Your task to perform on an android device: delete the emails in spam in the gmail app Image 0: 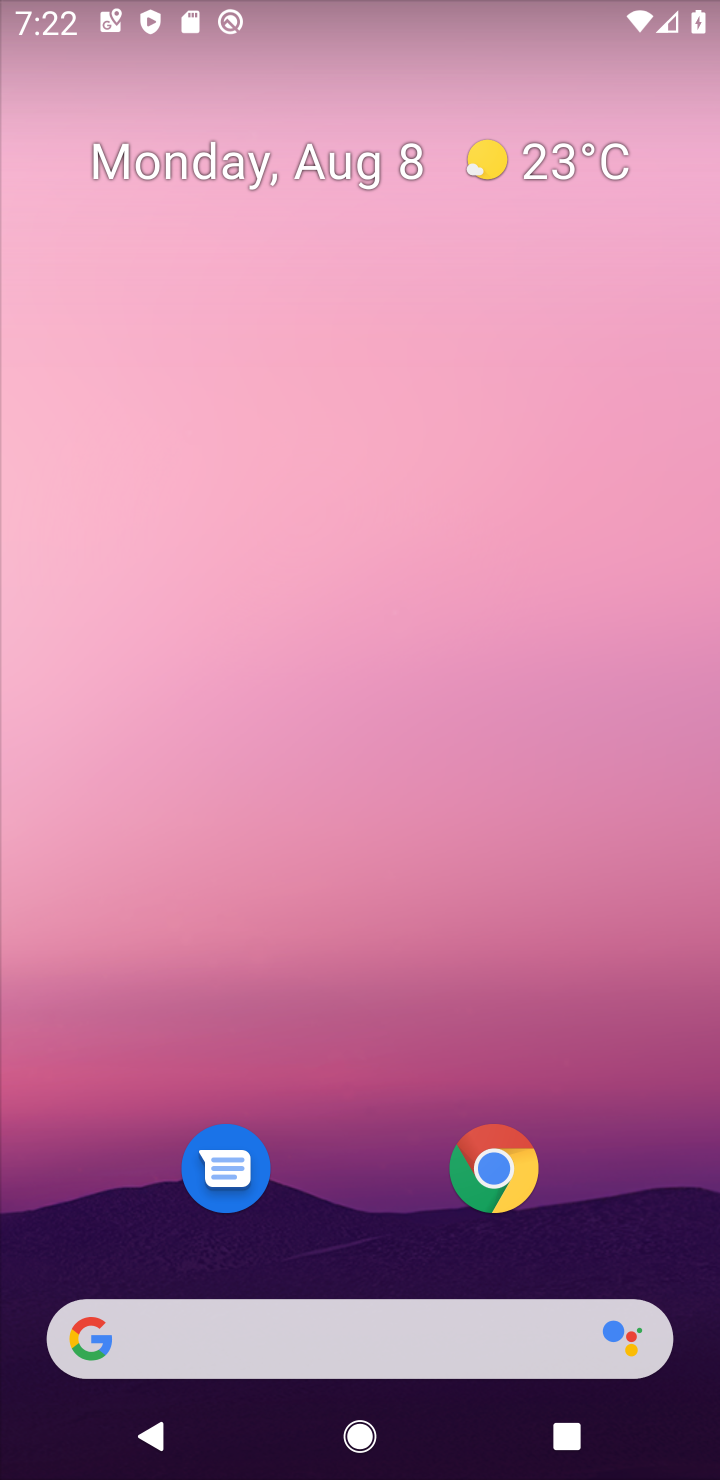
Step 0: drag from (667, 1218) to (326, 59)
Your task to perform on an android device: delete the emails in spam in the gmail app Image 1: 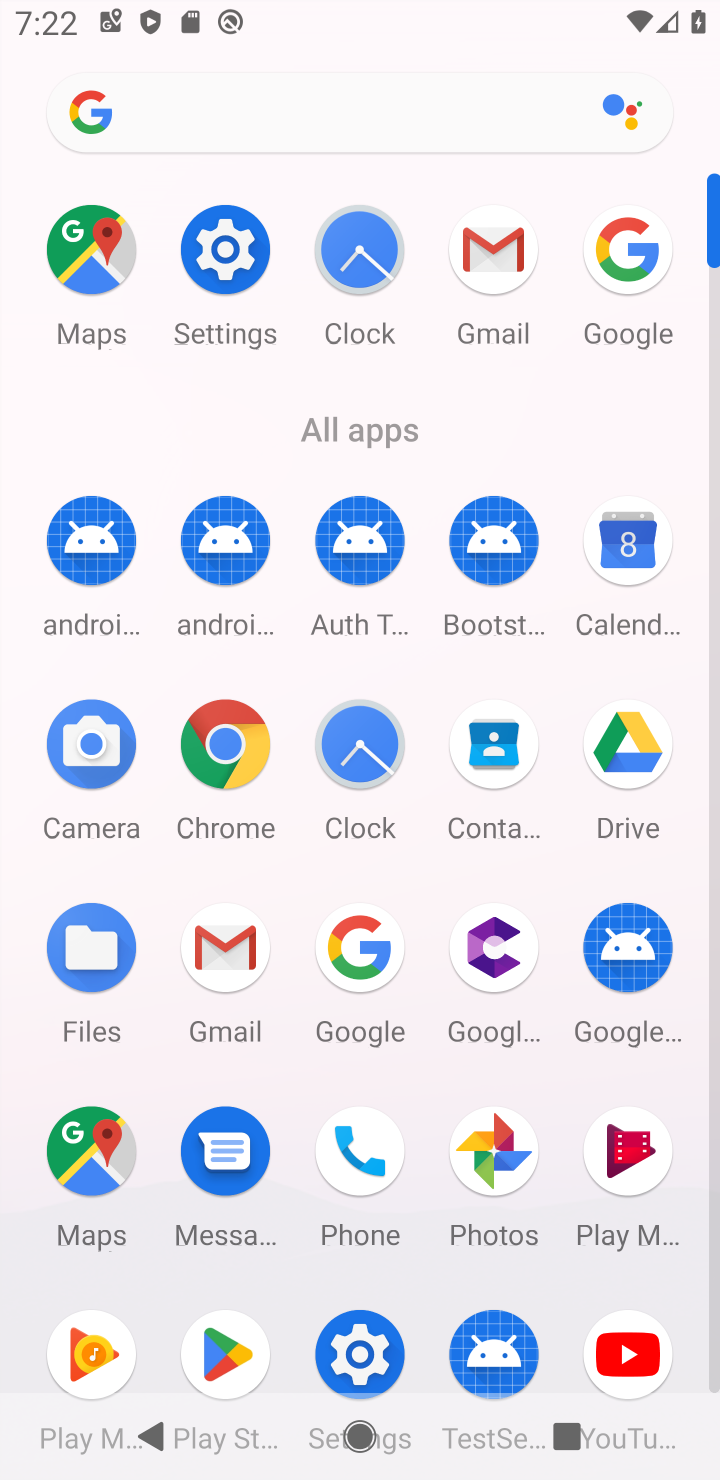
Step 1: click (203, 948)
Your task to perform on an android device: delete the emails in spam in the gmail app Image 2: 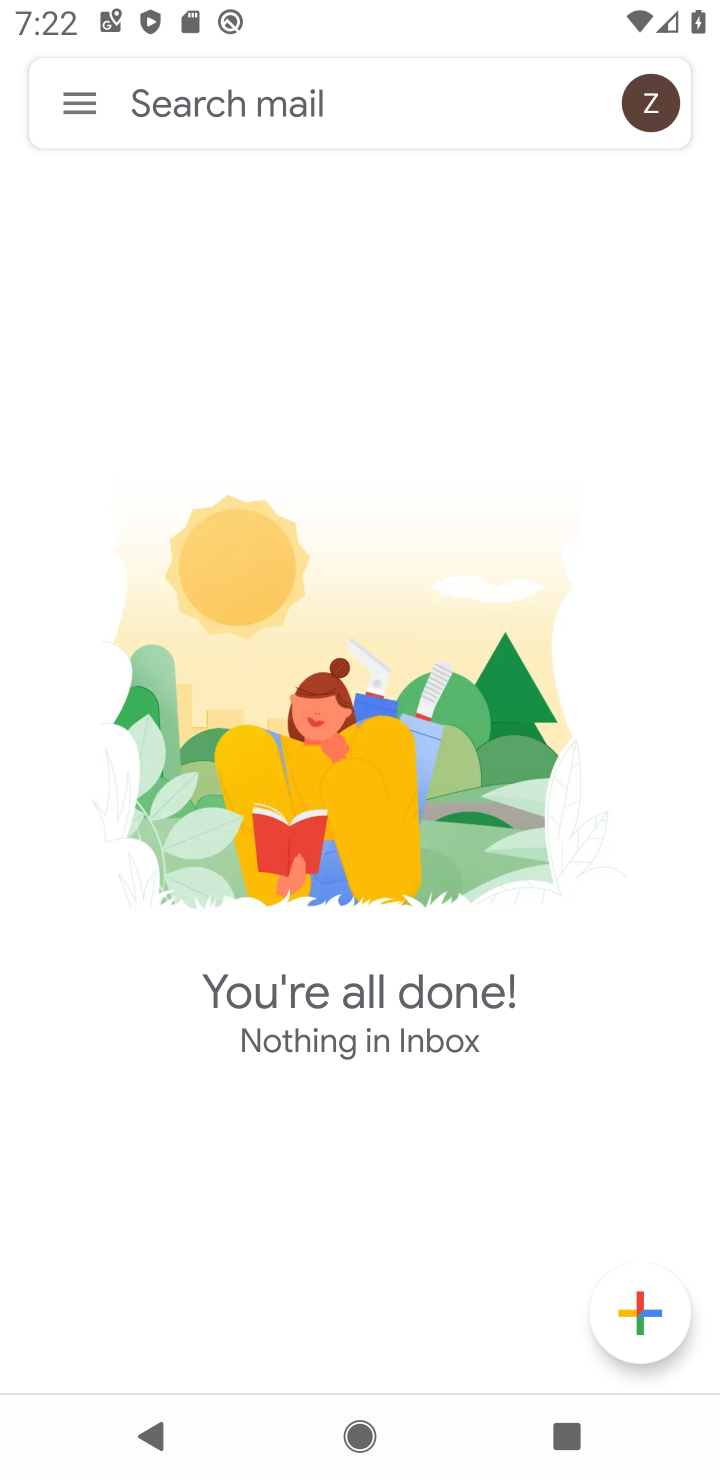
Step 2: click (86, 114)
Your task to perform on an android device: delete the emails in spam in the gmail app Image 3: 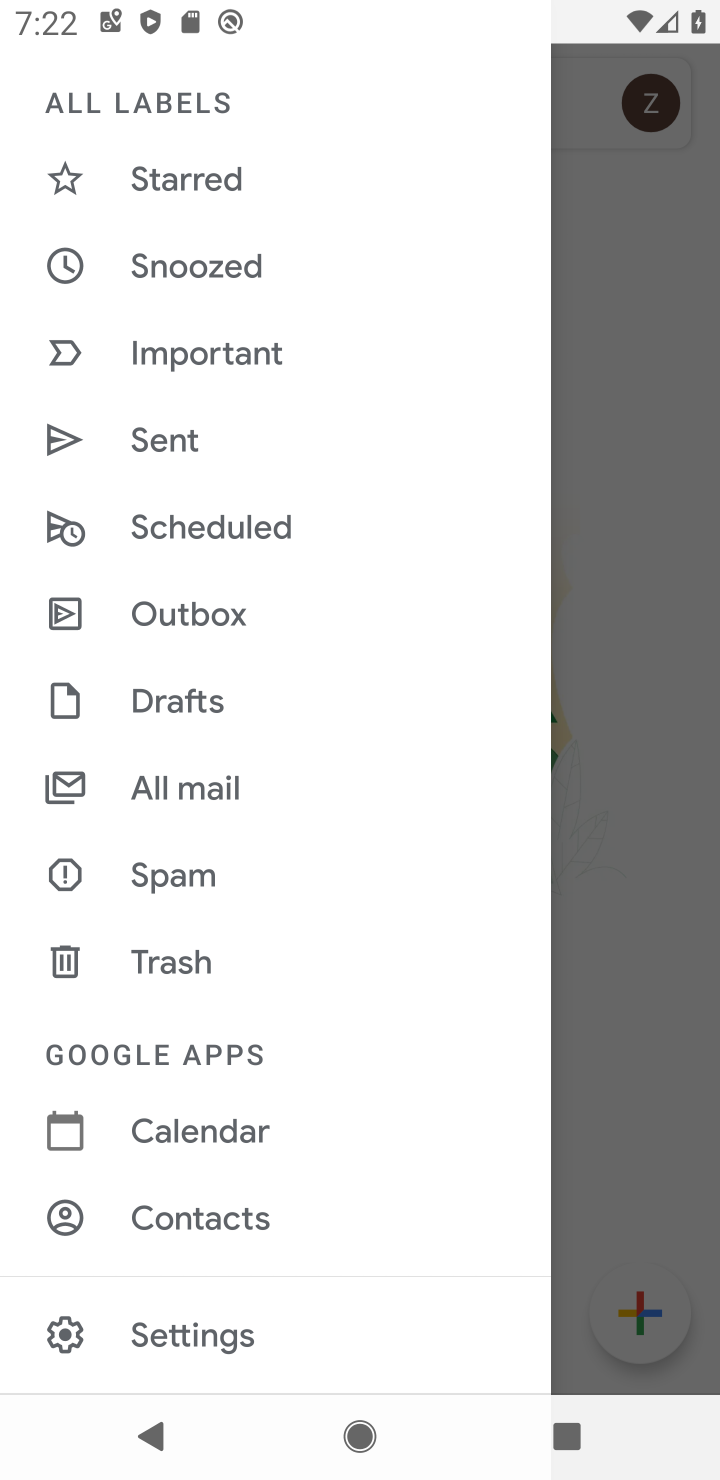
Step 3: click (215, 892)
Your task to perform on an android device: delete the emails in spam in the gmail app Image 4: 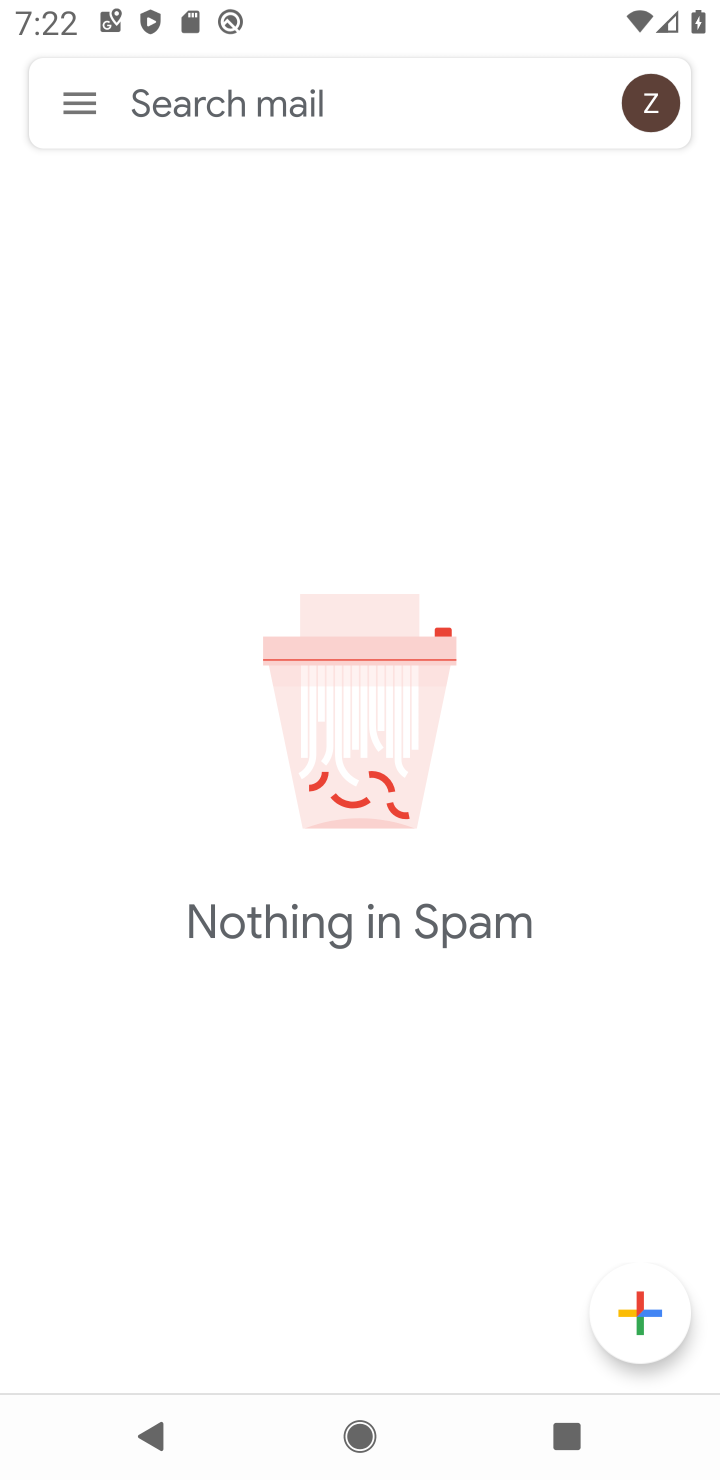
Step 4: task complete